Your task to perform on an android device: Open Android settings Image 0: 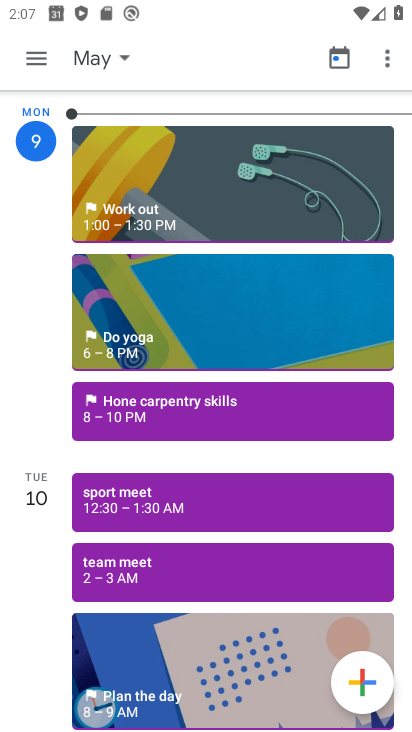
Step 0: press back button
Your task to perform on an android device: Open Android settings Image 1: 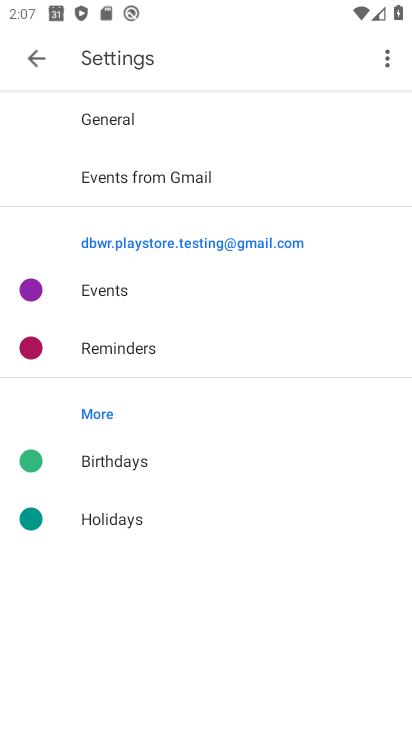
Step 1: press back button
Your task to perform on an android device: Open Android settings Image 2: 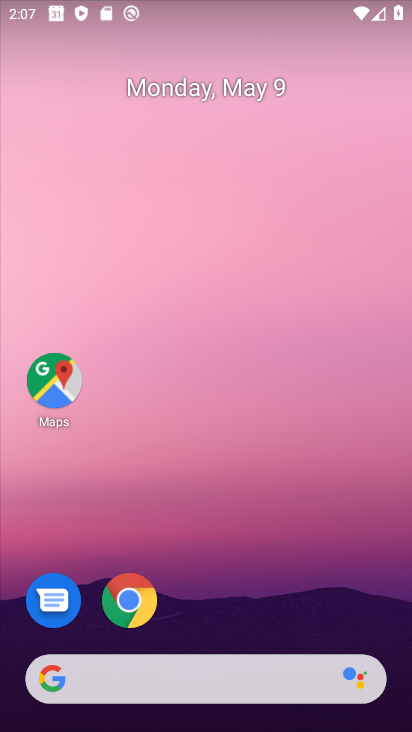
Step 2: drag from (262, 564) to (284, 18)
Your task to perform on an android device: Open Android settings Image 3: 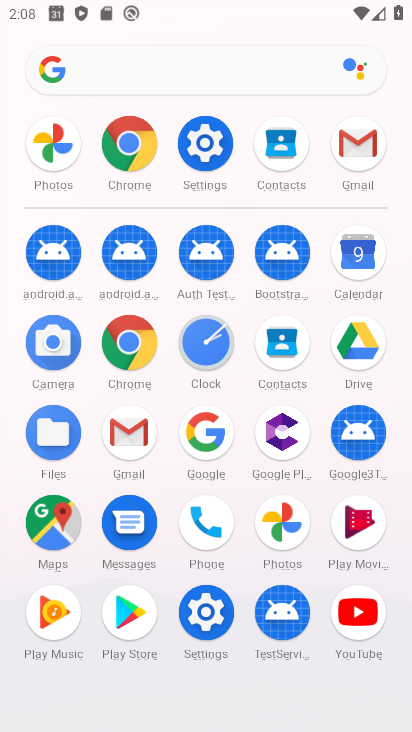
Step 3: click (201, 141)
Your task to perform on an android device: Open Android settings Image 4: 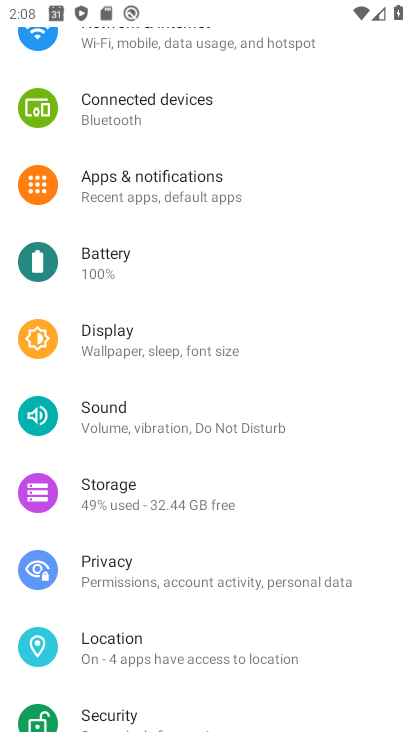
Step 4: task complete